Your task to perform on an android device: Open Google Image 0: 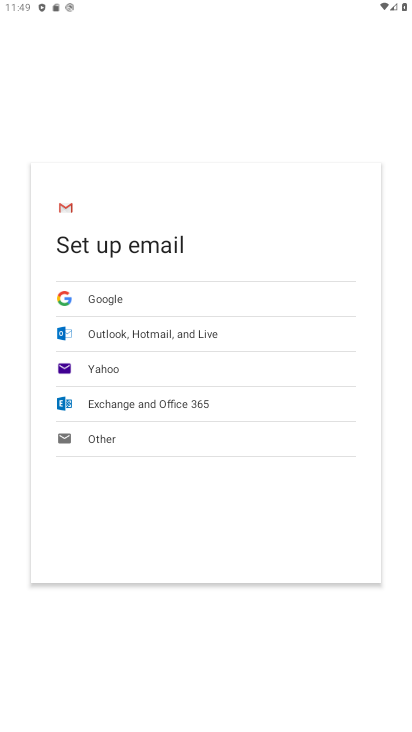
Step 0: press back button
Your task to perform on an android device: Open Google Image 1: 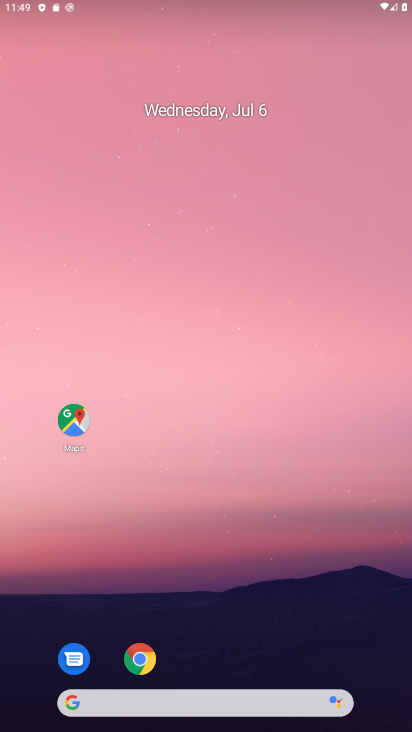
Step 1: drag from (269, 720) to (403, 38)
Your task to perform on an android device: Open Google Image 2: 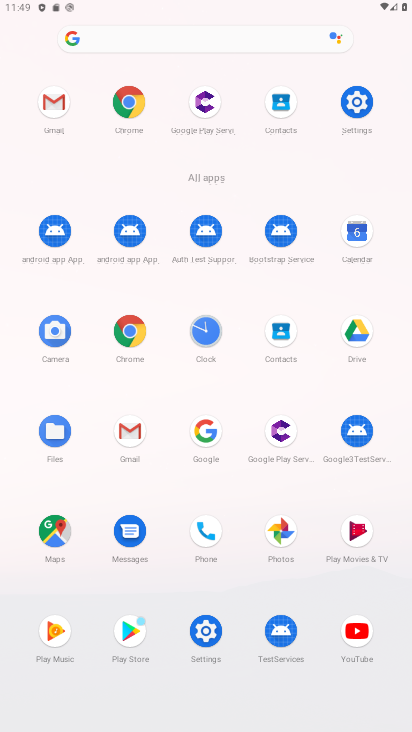
Step 2: click (209, 439)
Your task to perform on an android device: Open Google Image 3: 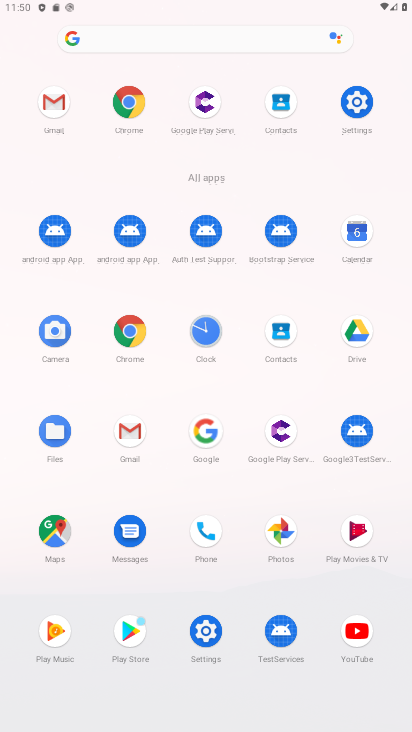
Step 3: click (207, 439)
Your task to perform on an android device: Open Google Image 4: 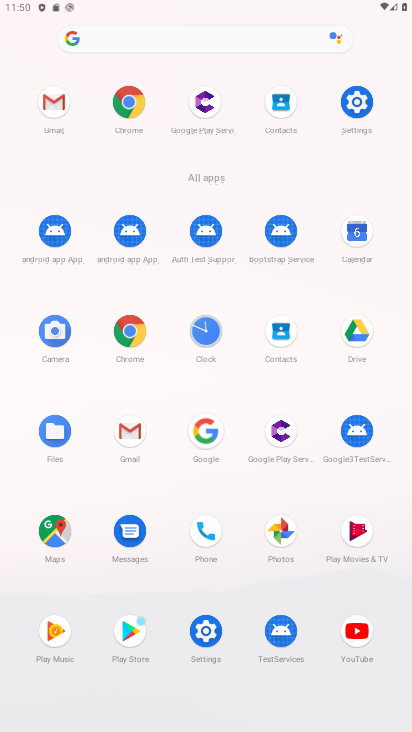
Step 4: click (210, 439)
Your task to perform on an android device: Open Google Image 5: 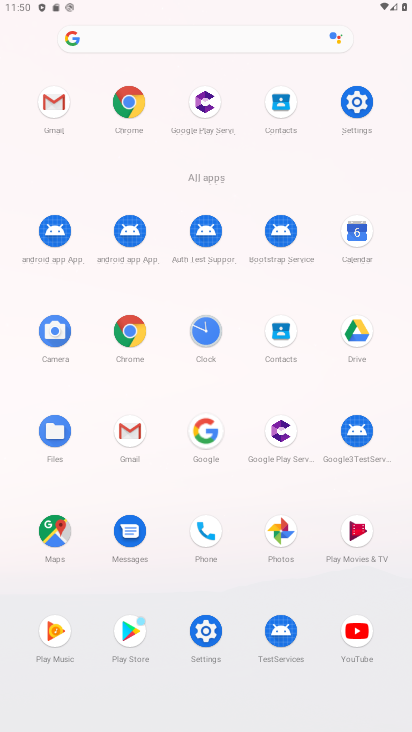
Step 5: click (213, 437)
Your task to perform on an android device: Open Google Image 6: 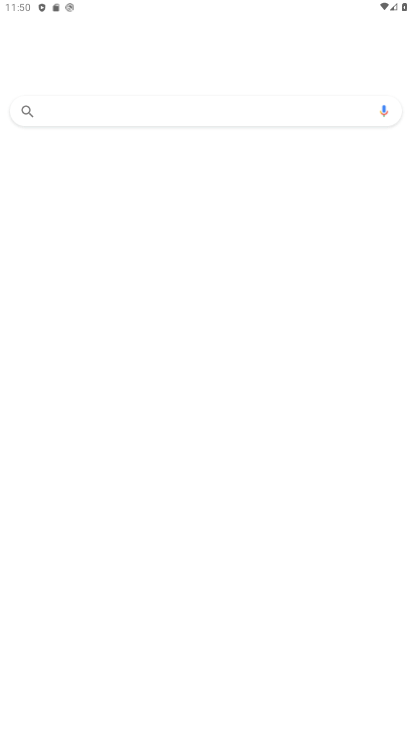
Step 6: click (212, 436)
Your task to perform on an android device: Open Google Image 7: 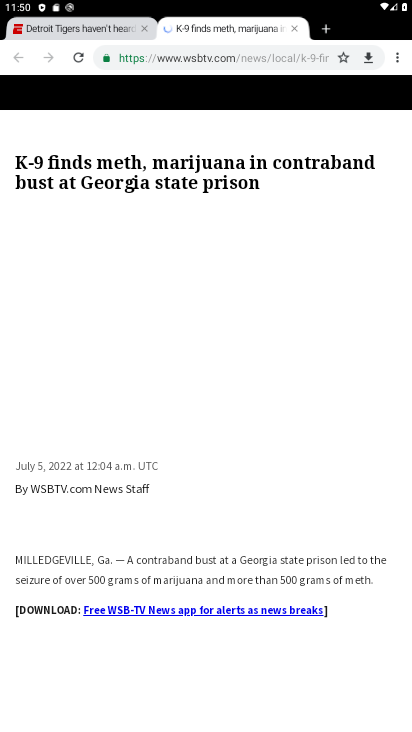
Step 7: task complete